Your task to perform on an android device: Open settings Image 0: 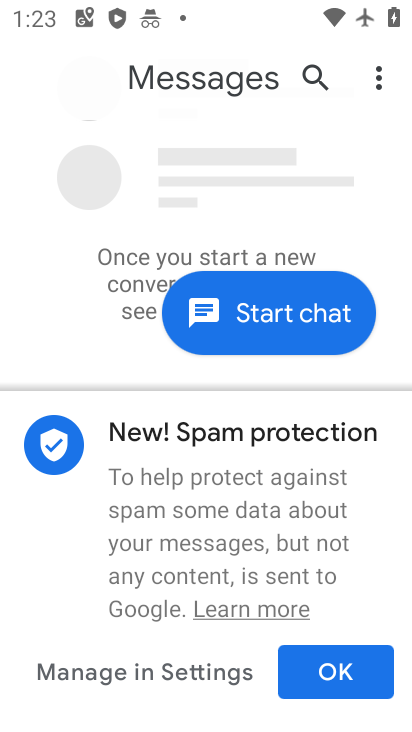
Step 0: press home button
Your task to perform on an android device: Open settings Image 1: 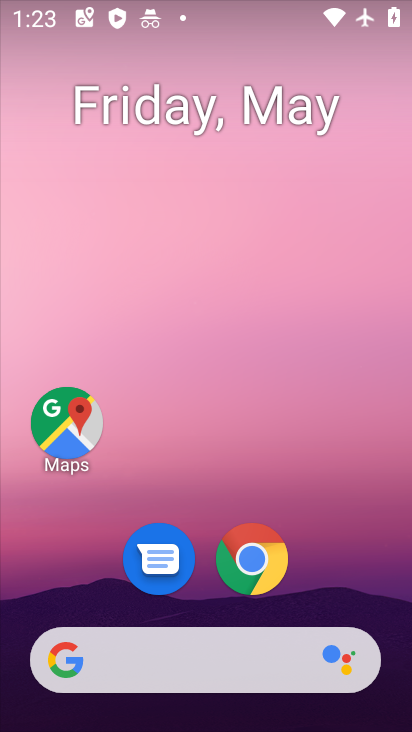
Step 1: drag from (353, 572) to (340, 150)
Your task to perform on an android device: Open settings Image 2: 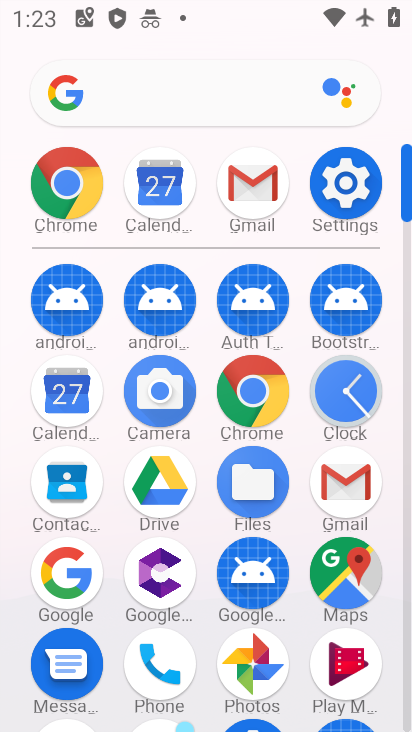
Step 2: click (346, 178)
Your task to perform on an android device: Open settings Image 3: 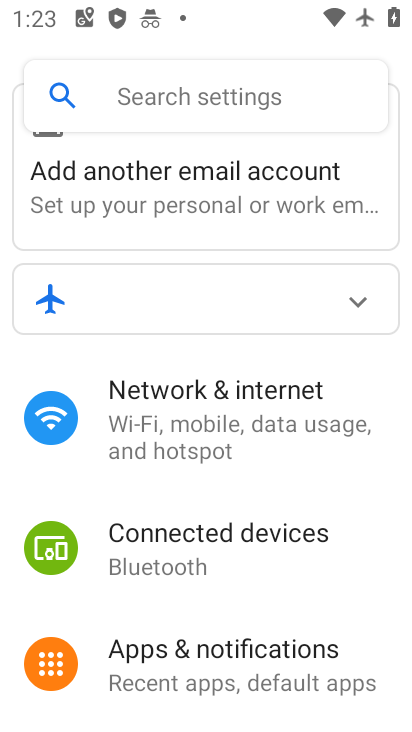
Step 3: task complete